Your task to perform on an android device: change your default location settings in chrome Image 0: 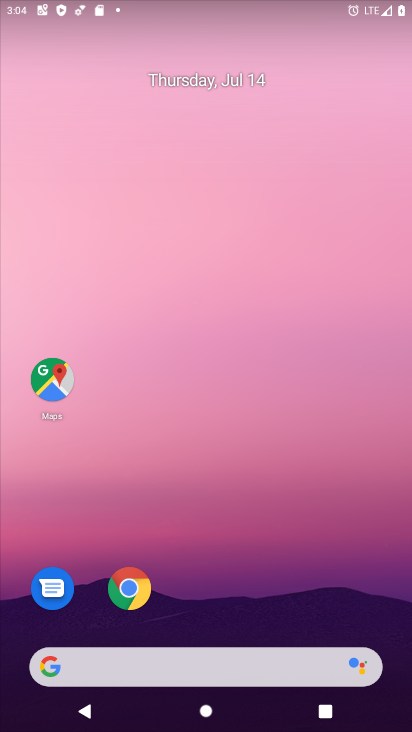
Step 0: drag from (227, 532) to (229, 275)
Your task to perform on an android device: change your default location settings in chrome Image 1: 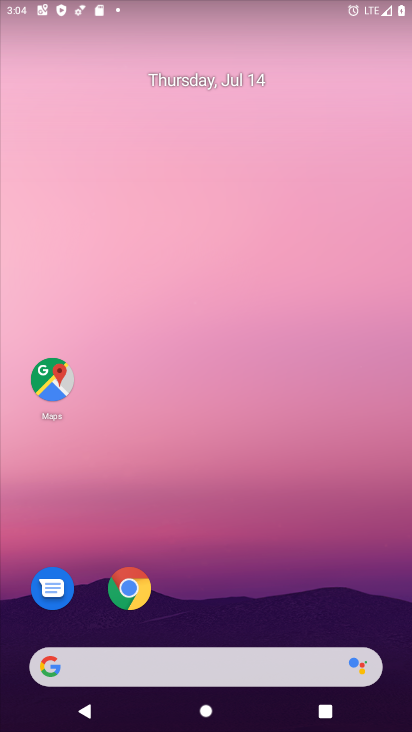
Step 1: drag from (228, 636) to (241, 134)
Your task to perform on an android device: change your default location settings in chrome Image 2: 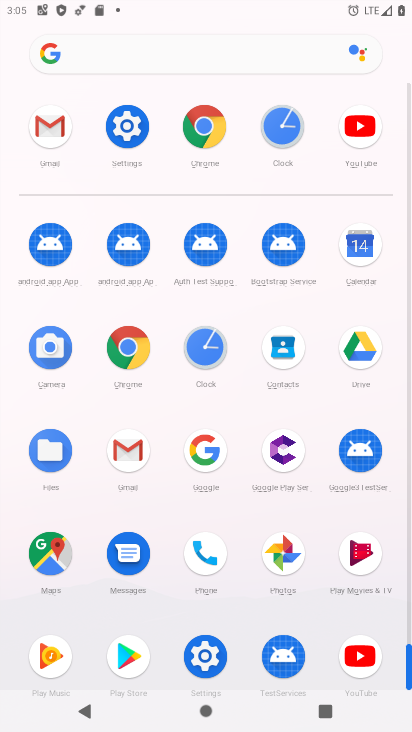
Step 2: click (194, 131)
Your task to perform on an android device: change your default location settings in chrome Image 3: 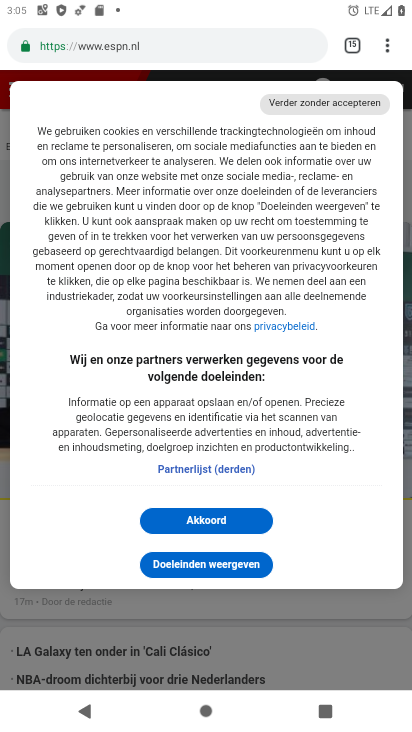
Step 3: click (390, 39)
Your task to perform on an android device: change your default location settings in chrome Image 4: 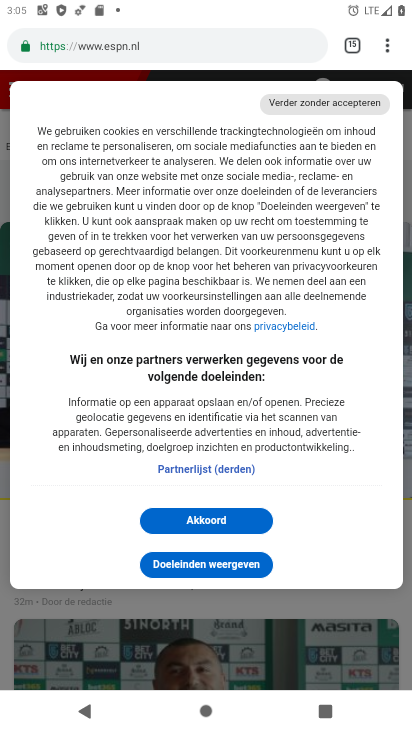
Step 4: click (384, 46)
Your task to perform on an android device: change your default location settings in chrome Image 5: 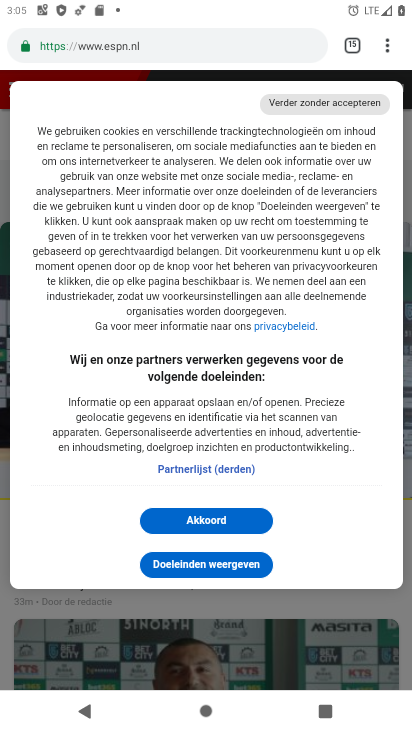
Step 5: click (384, 46)
Your task to perform on an android device: change your default location settings in chrome Image 6: 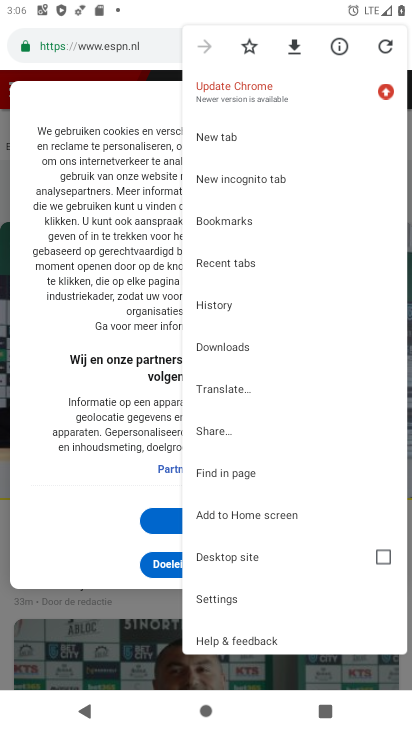
Step 6: click (227, 606)
Your task to perform on an android device: change your default location settings in chrome Image 7: 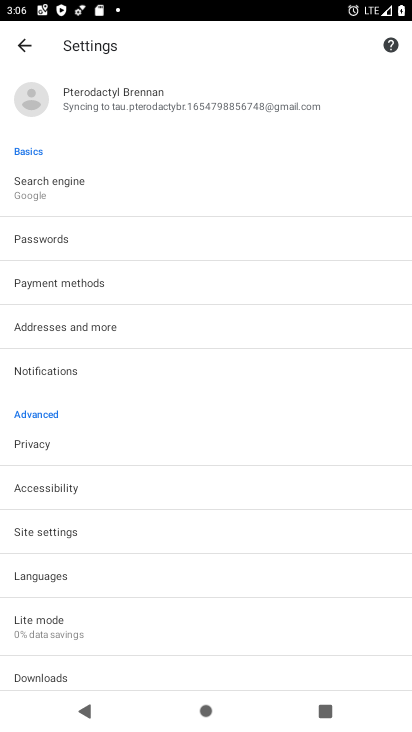
Step 7: click (77, 525)
Your task to perform on an android device: change your default location settings in chrome Image 8: 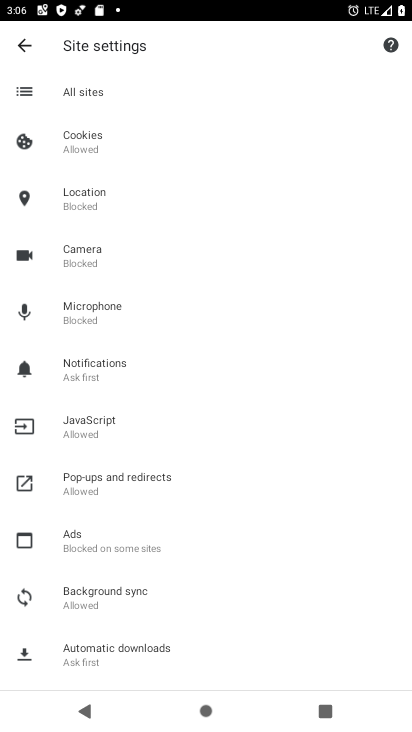
Step 8: click (141, 196)
Your task to perform on an android device: change your default location settings in chrome Image 9: 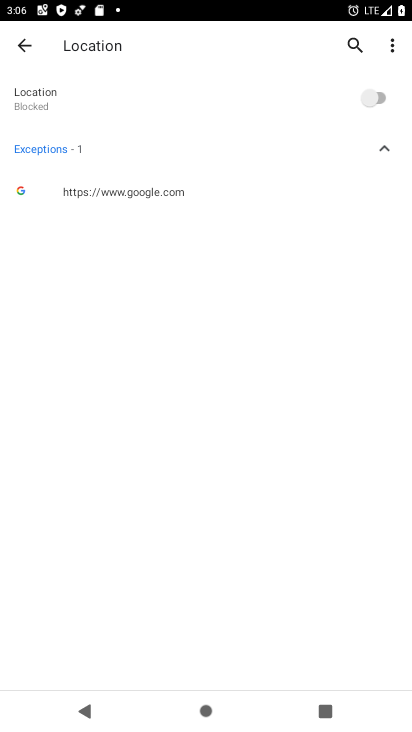
Step 9: click (370, 97)
Your task to perform on an android device: change your default location settings in chrome Image 10: 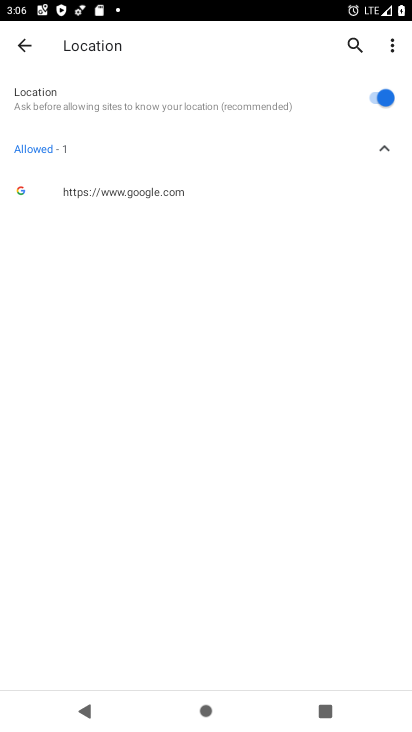
Step 10: task complete